Your task to perform on an android device: install app "DoorDash - Food Delivery" Image 0: 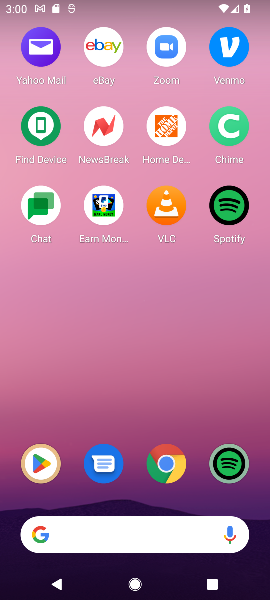
Step 0: press home button
Your task to perform on an android device: install app "DoorDash - Food Delivery" Image 1: 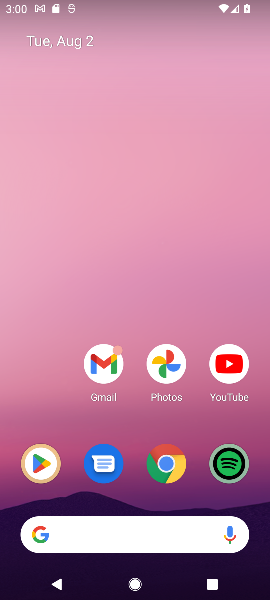
Step 1: click (44, 459)
Your task to perform on an android device: install app "DoorDash - Food Delivery" Image 2: 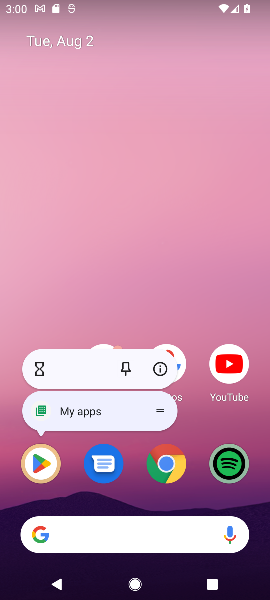
Step 2: click (34, 474)
Your task to perform on an android device: install app "DoorDash - Food Delivery" Image 3: 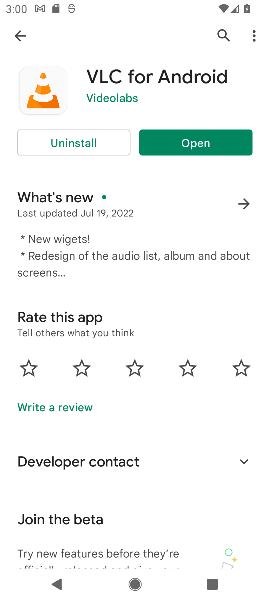
Step 3: click (222, 28)
Your task to perform on an android device: install app "DoorDash - Food Delivery" Image 4: 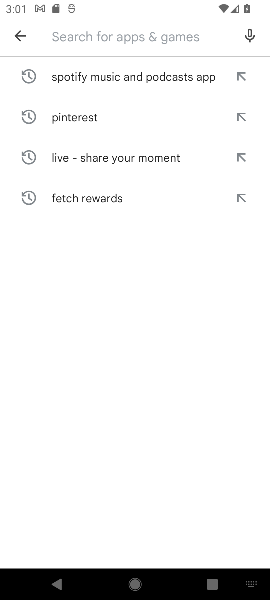
Step 4: type "DoorDash - Food Delivery"
Your task to perform on an android device: install app "DoorDash - Food Delivery" Image 5: 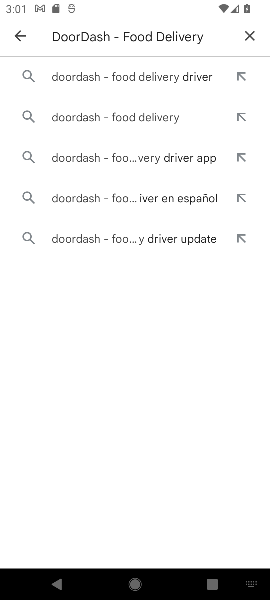
Step 5: click (121, 77)
Your task to perform on an android device: install app "DoorDash - Food Delivery" Image 6: 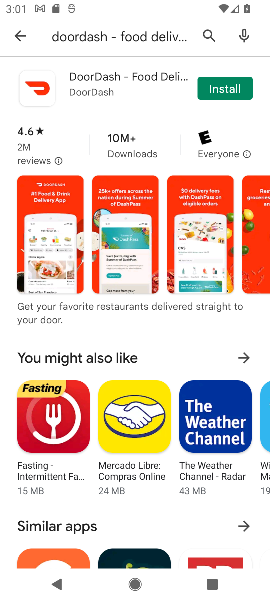
Step 6: click (219, 90)
Your task to perform on an android device: install app "DoorDash - Food Delivery" Image 7: 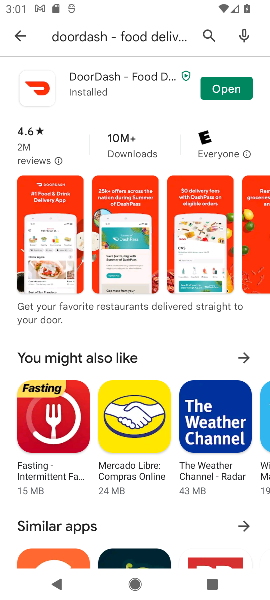
Step 7: task complete